Your task to perform on an android device: What's the weather going to be this weekend? Image 0: 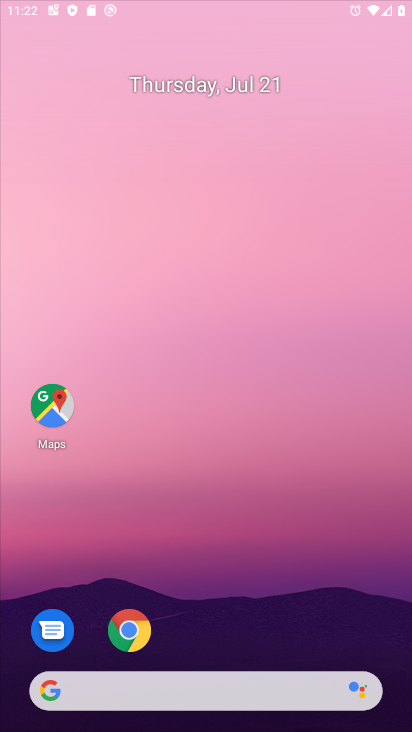
Step 0: drag from (202, 636) to (189, 117)
Your task to perform on an android device: What's the weather going to be this weekend? Image 1: 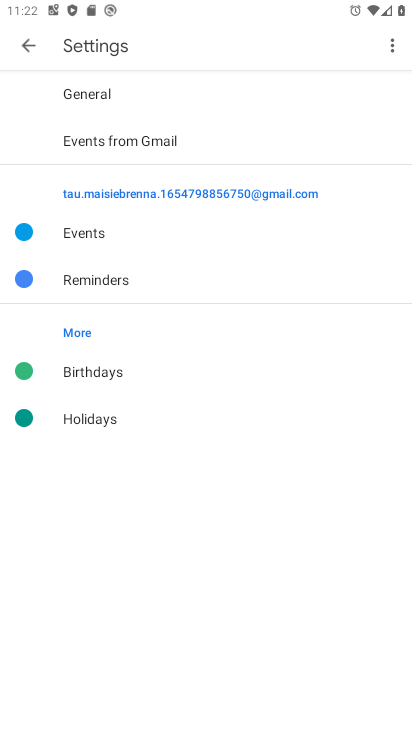
Step 1: press home button
Your task to perform on an android device: What's the weather going to be this weekend? Image 2: 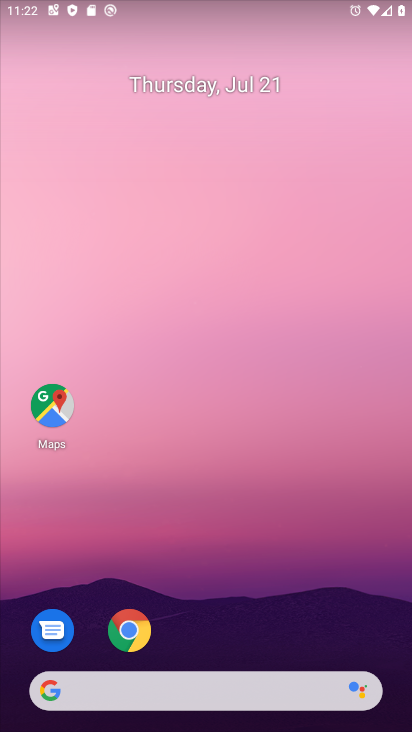
Step 2: click (219, 679)
Your task to perform on an android device: What's the weather going to be this weekend? Image 3: 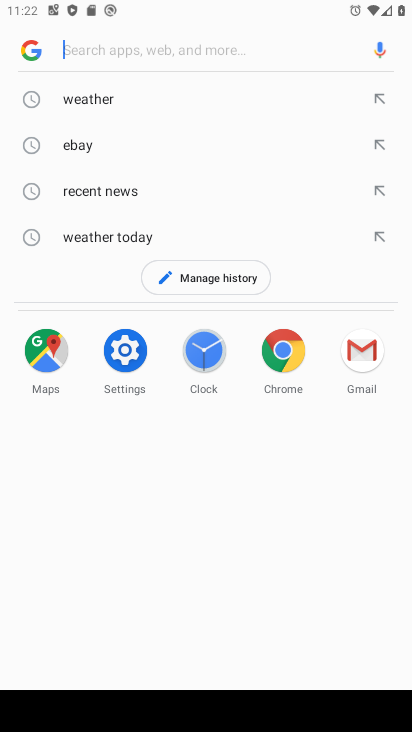
Step 3: click (97, 88)
Your task to perform on an android device: What's the weather going to be this weekend? Image 4: 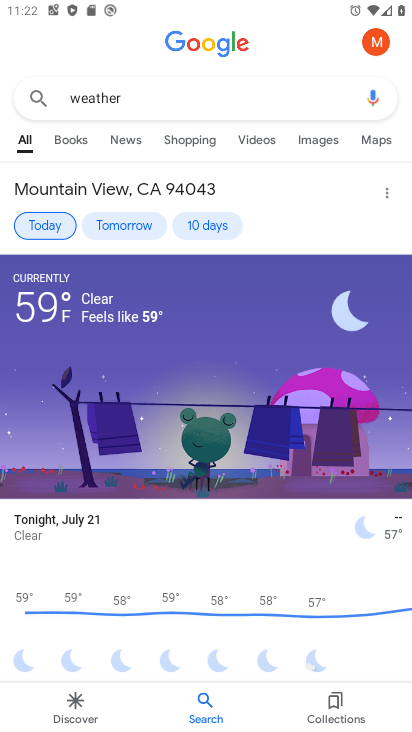
Step 4: click (215, 229)
Your task to perform on an android device: What's the weather going to be this weekend? Image 5: 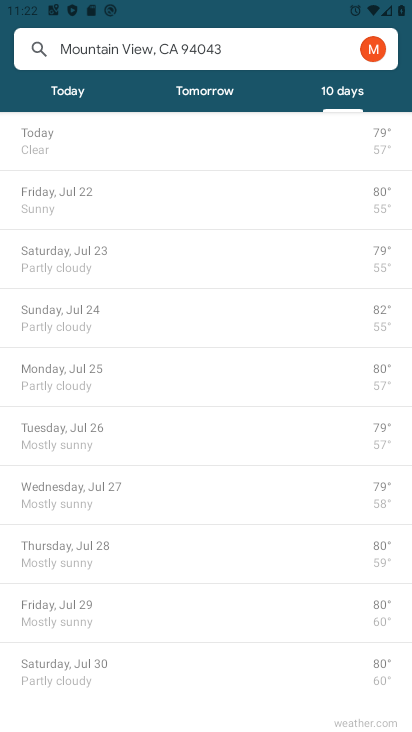
Step 5: task complete